Your task to perform on an android device: visit the assistant section in the google photos Image 0: 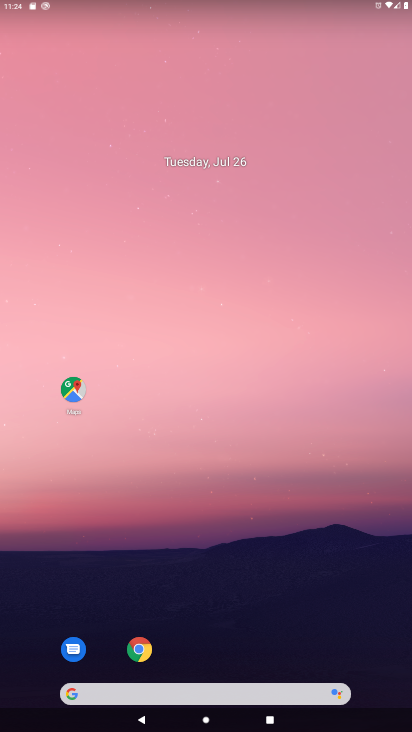
Step 0: drag from (189, 636) to (224, 238)
Your task to perform on an android device: visit the assistant section in the google photos Image 1: 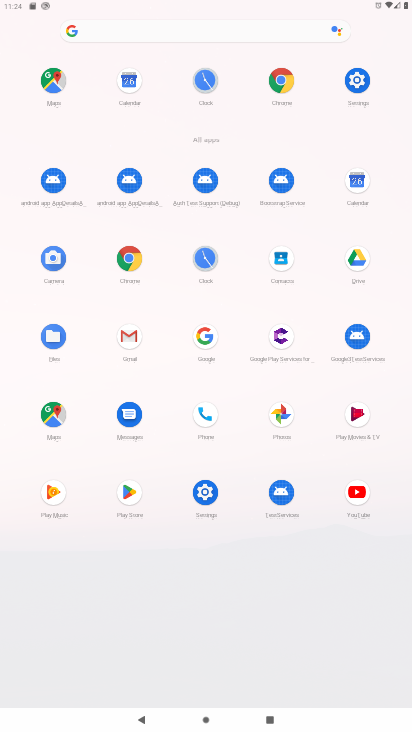
Step 1: click (282, 421)
Your task to perform on an android device: visit the assistant section in the google photos Image 2: 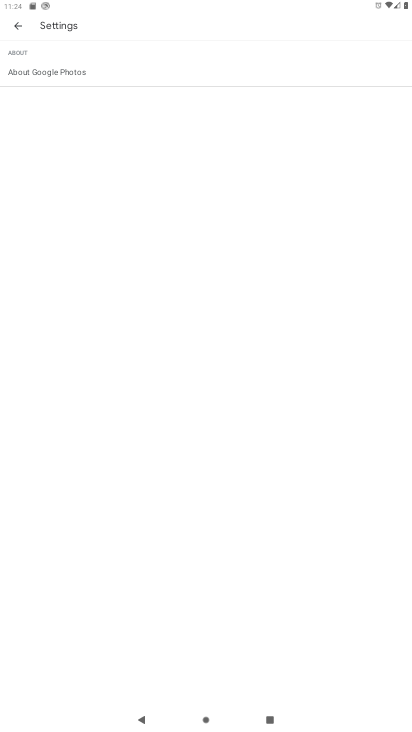
Step 2: click (11, 25)
Your task to perform on an android device: visit the assistant section in the google photos Image 3: 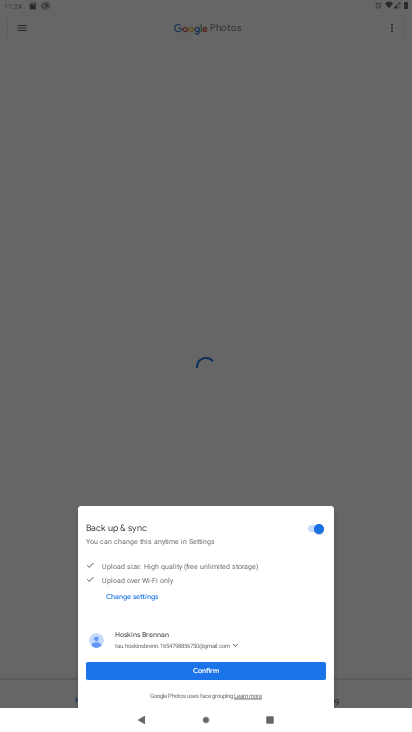
Step 3: click (262, 667)
Your task to perform on an android device: visit the assistant section in the google photos Image 4: 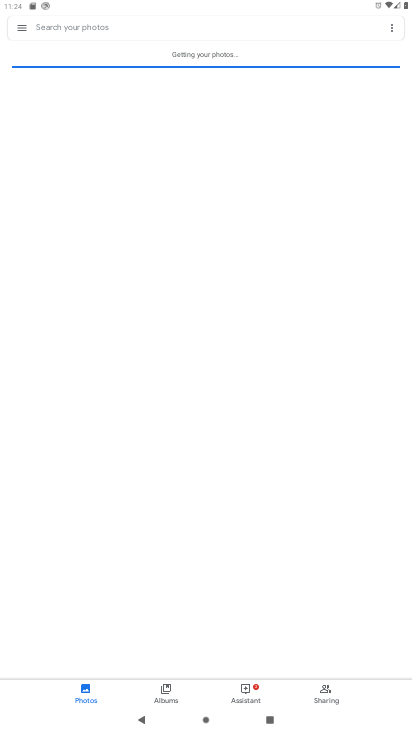
Step 4: click (252, 692)
Your task to perform on an android device: visit the assistant section in the google photos Image 5: 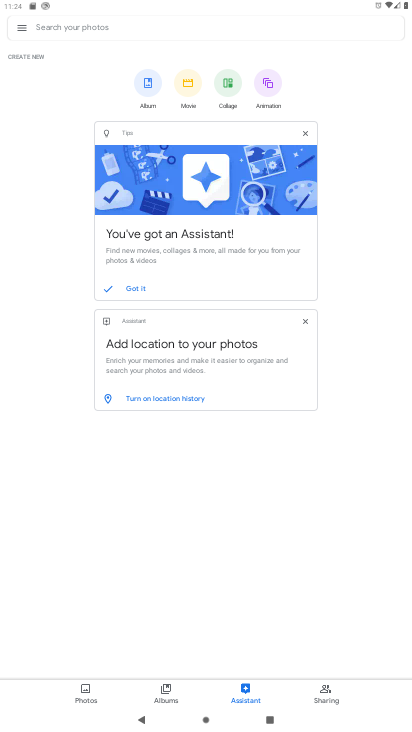
Step 5: task complete